Your task to perform on an android device: set default search engine in the chrome app Image 0: 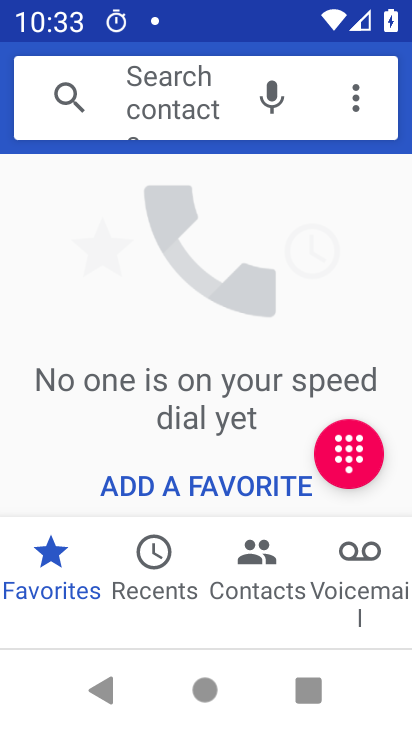
Step 0: press back button
Your task to perform on an android device: set default search engine in the chrome app Image 1: 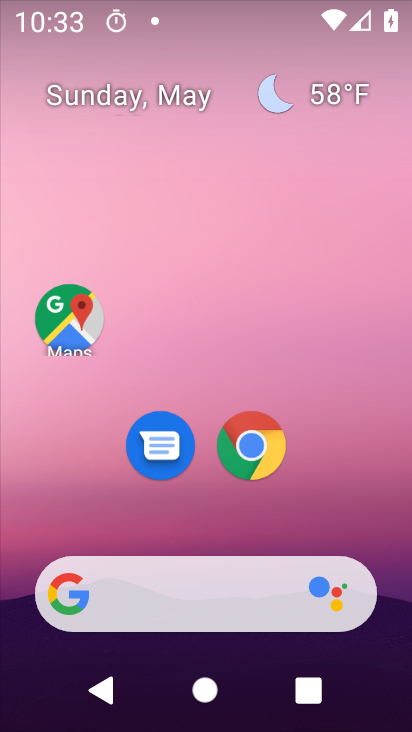
Step 1: drag from (321, 401) to (232, 33)
Your task to perform on an android device: set default search engine in the chrome app Image 2: 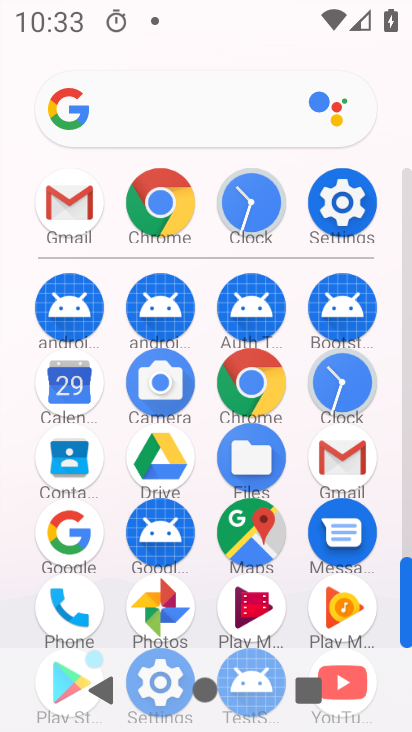
Step 2: drag from (15, 589) to (5, 164)
Your task to perform on an android device: set default search engine in the chrome app Image 3: 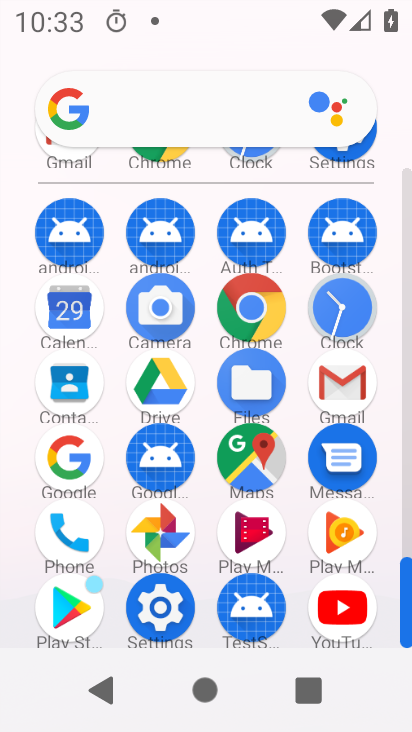
Step 3: click (251, 306)
Your task to perform on an android device: set default search engine in the chrome app Image 4: 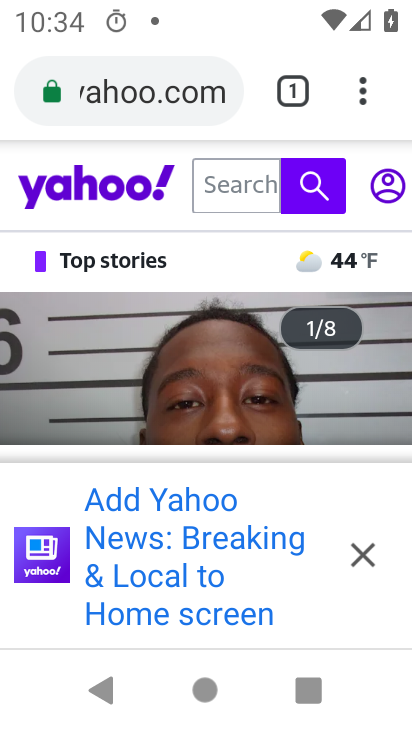
Step 4: drag from (369, 91) to (84, 467)
Your task to perform on an android device: set default search engine in the chrome app Image 5: 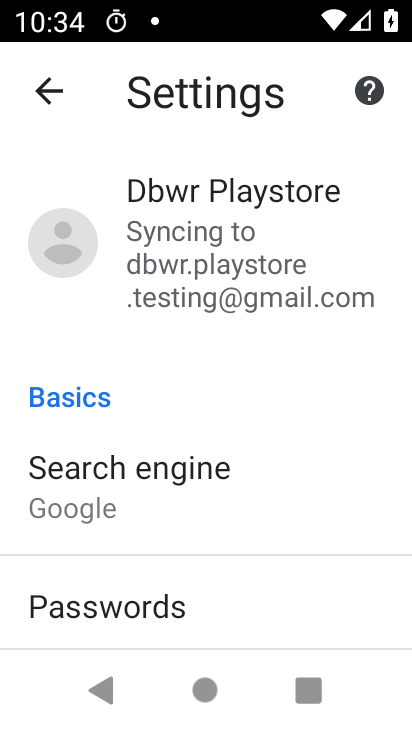
Step 5: drag from (205, 596) to (230, 270)
Your task to perform on an android device: set default search engine in the chrome app Image 6: 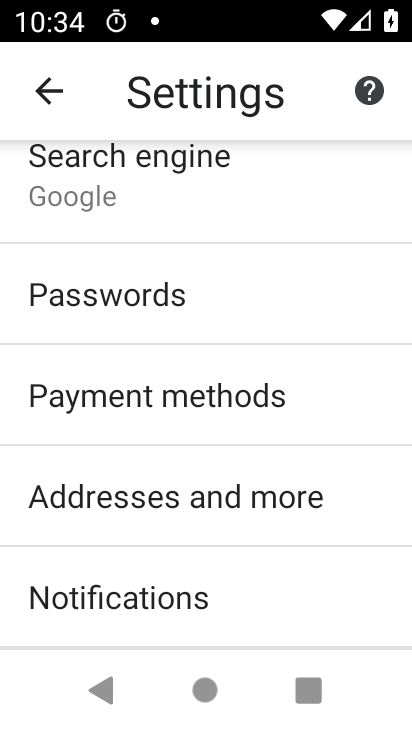
Step 6: click (218, 195)
Your task to perform on an android device: set default search engine in the chrome app Image 7: 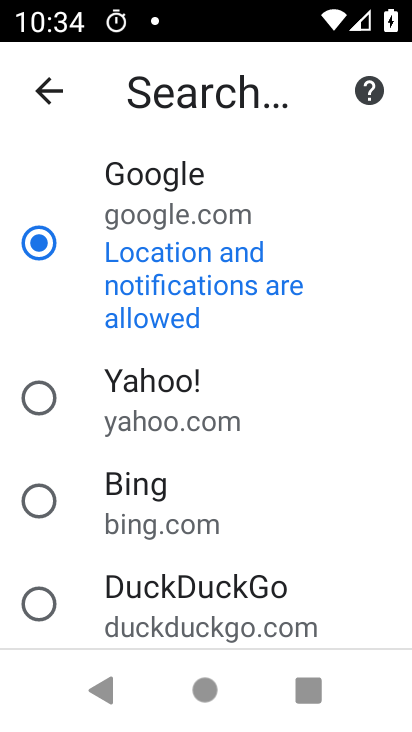
Step 7: task complete